Your task to perform on an android device: turn on translation in the chrome app Image 0: 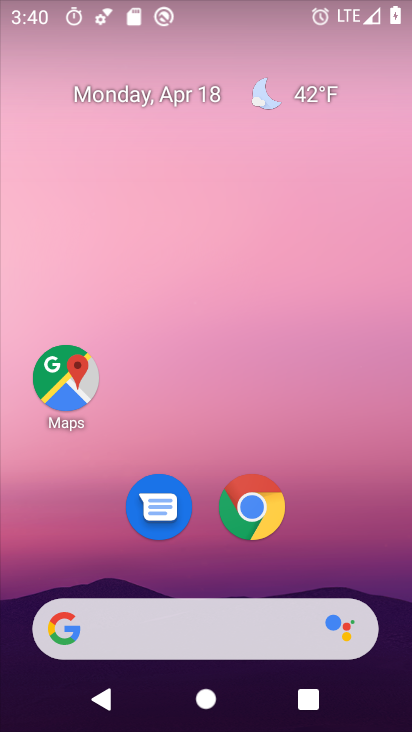
Step 0: drag from (361, 553) to (360, 185)
Your task to perform on an android device: turn on translation in the chrome app Image 1: 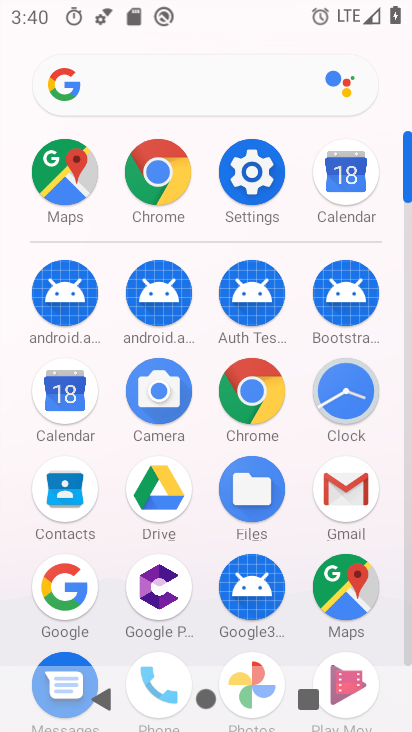
Step 1: click (261, 397)
Your task to perform on an android device: turn on translation in the chrome app Image 2: 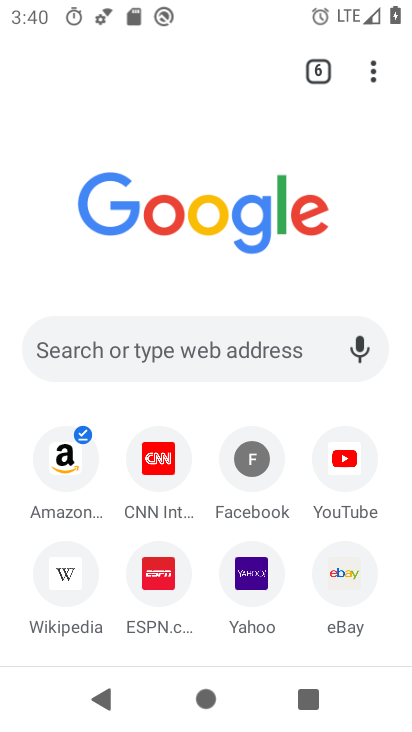
Step 2: click (370, 79)
Your task to perform on an android device: turn on translation in the chrome app Image 3: 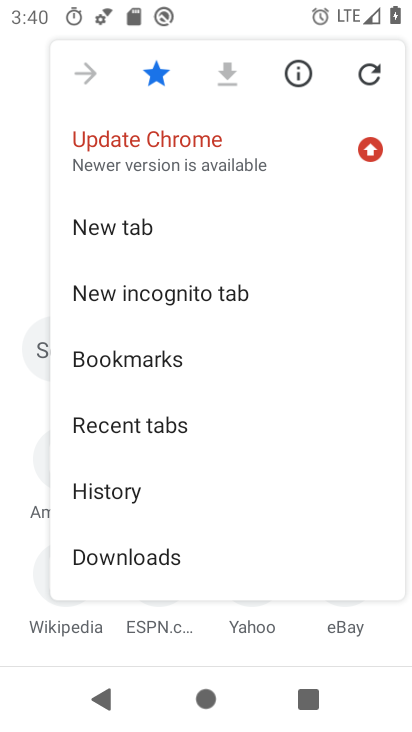
Step 3: drag from (198, 505) to (225, 194)
Your task to perform on an android device: turn on translation in the chrome app Image 4: 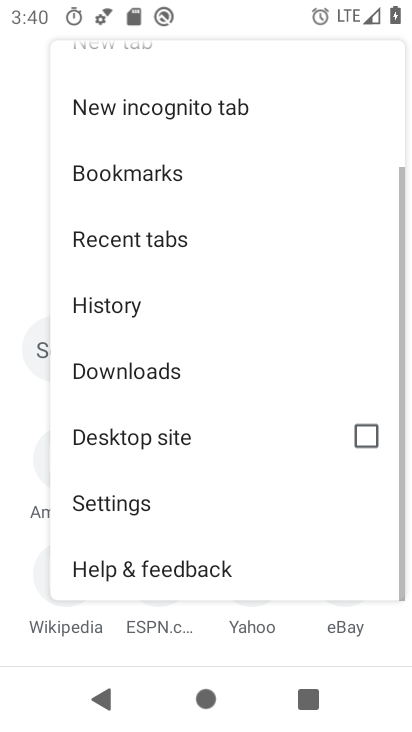
Step 4: click (130, 512)
Your task to perform on an android device: turn on translation in the chrome app Image 5: 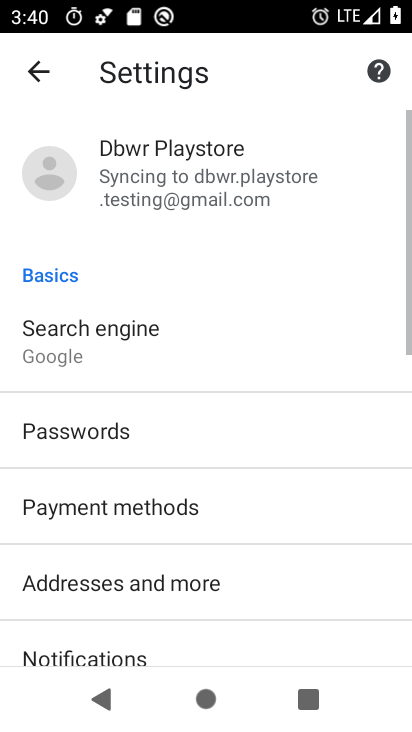
Step 5: drag from (308, 655) to (308, 296)
Your task to perform on an android device: turn on translation in the chrome app Image 6: 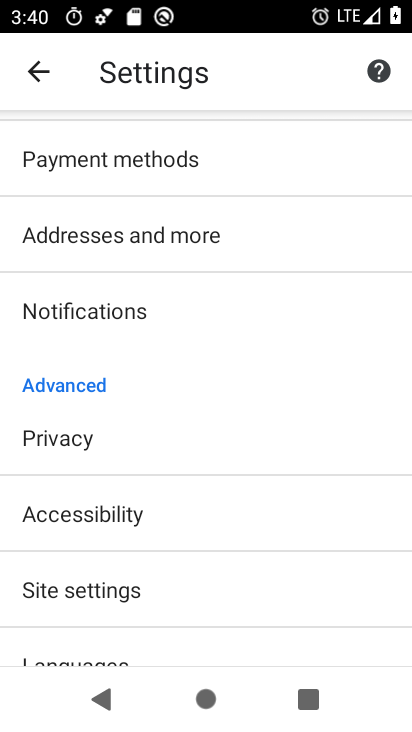
Step 6: drag from (251, 608) to (282, 297)
Your task to perform on an android device: turn on translation in the chrome app Image 7: 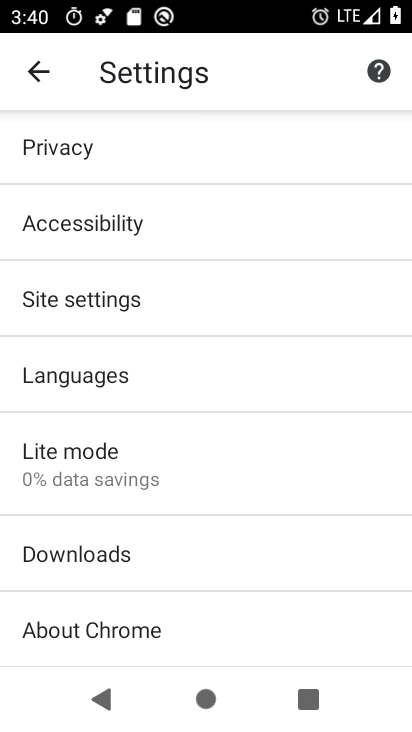
Step 7: click (138, 380)
Your task to perform on an android device: turn on translation in the chrome app Image 8: 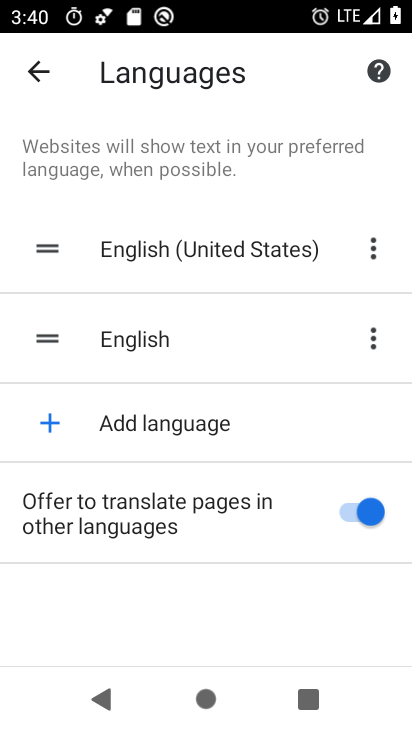
Step 8: task complete